Your task to perform on an android device: Open network settings Image 0: 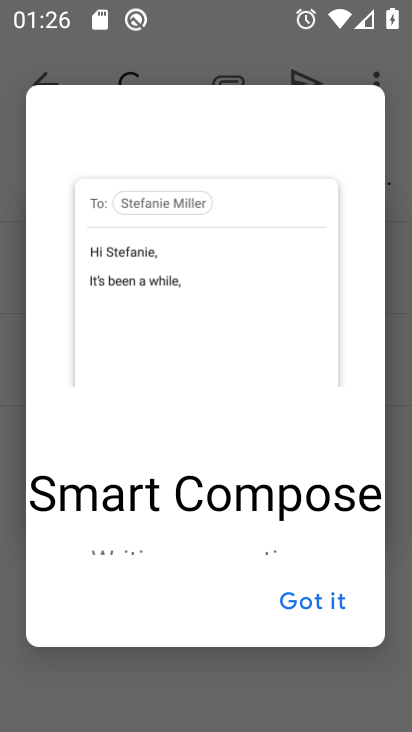
Step 0: press home button
Your task to perform on an android device: Open network settings Image 1: 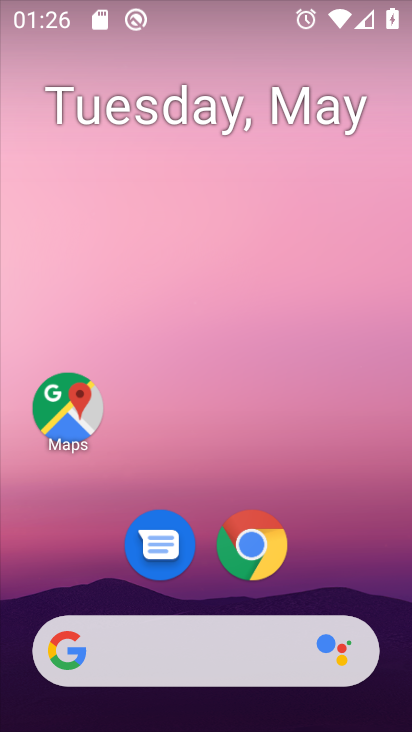
Step 1: drag from (334, 593) to (232, 138)
Your task to perform on an android device: Open network settings Image 2: 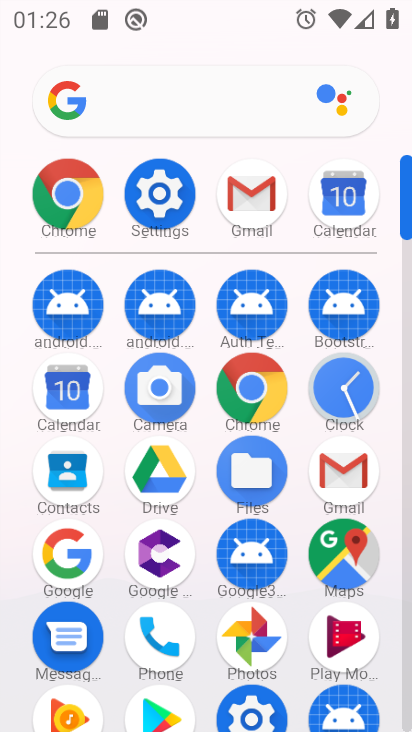
Step 2: click (166, 206)
Your task to perform on an android device: Open network settings Image 3: 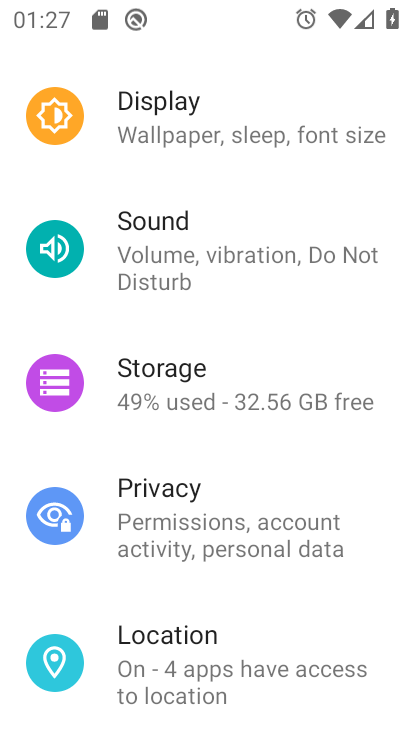
Step 3: drag from (158, 316) to (205, 471)
Your task to perform on an android device: Open network settings Image 4: 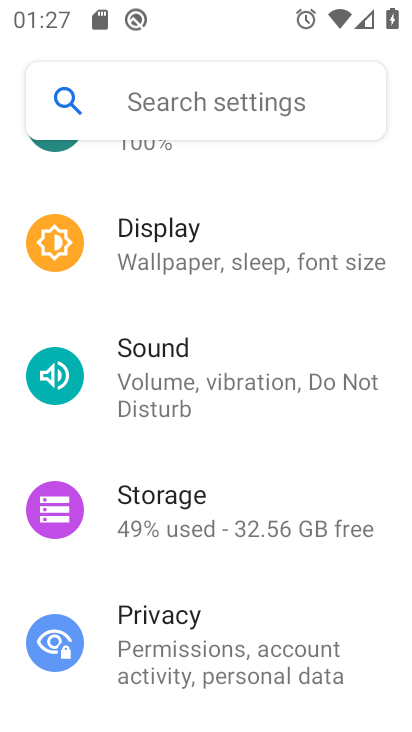
Step 4: drag from (158, 186) to (241, 523)
Your task to perform on an android device: Open network settings Image 5: 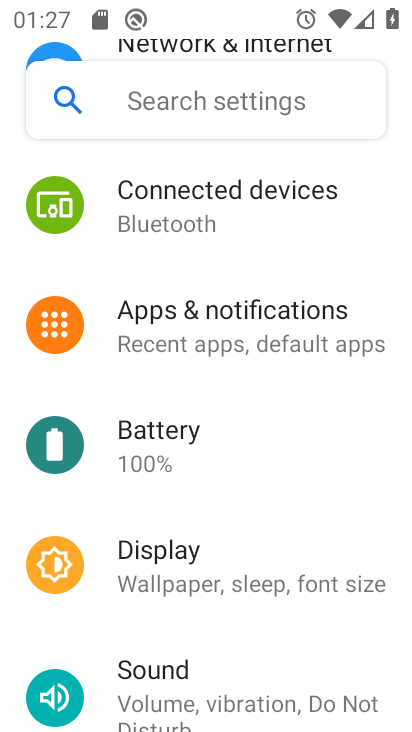
Step 5: drag from (196, 377) to (241, 550)
Your task to perform on an android device: Open network settings Image 6: 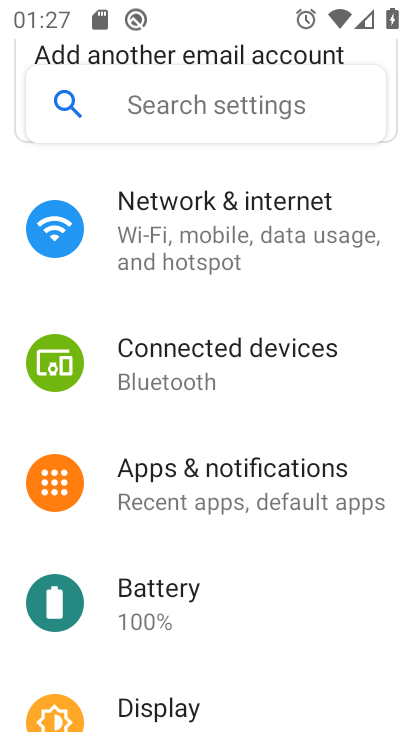
Step 6: click (196, 233)
Your task to perform on an android device: Open network settings Image 7: 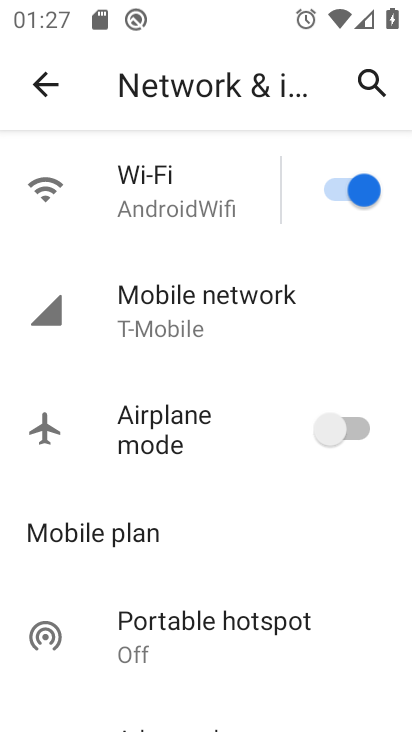
Step 7: click (89, 334)
Your task to perform on an android device: Open network settings Image 8: 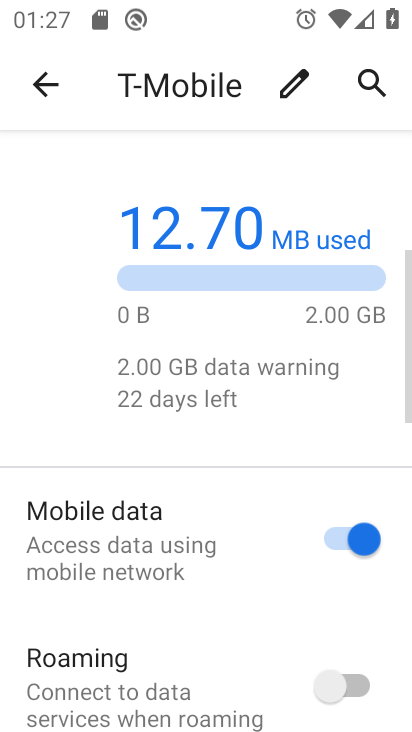
Step 8: task complete